Your task to perform on an android device: Search for pizza restaurants on Maps Image 0: 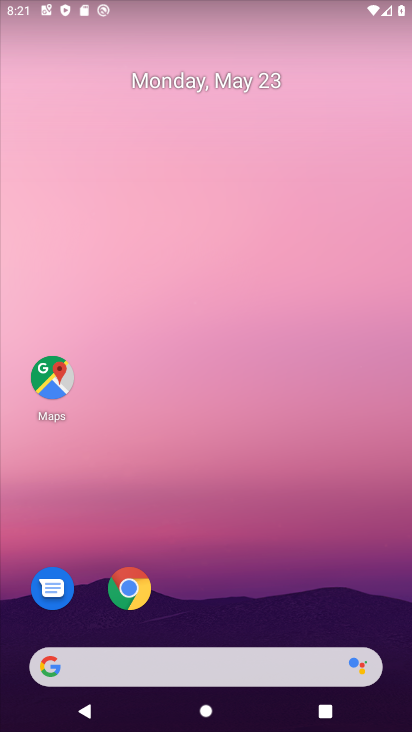
Step 0: click (44, 371)
Your task to perform on an android device: Search for pizza restaurants on Maps Image 1: 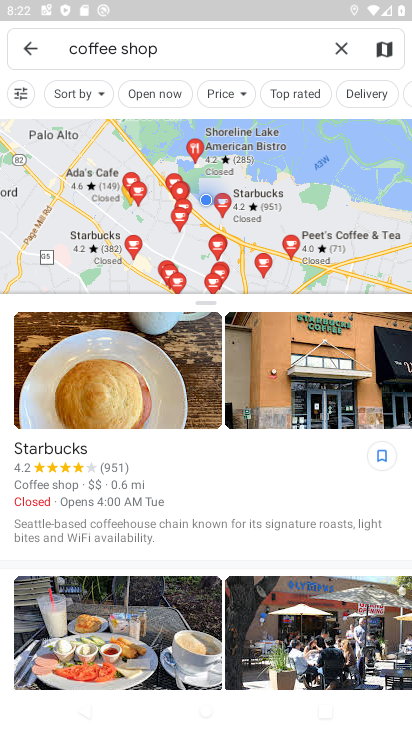
Step 1: click (344, 46)
Your task to perform on an android device: Search for pizza restaurants on Maps Image 2: 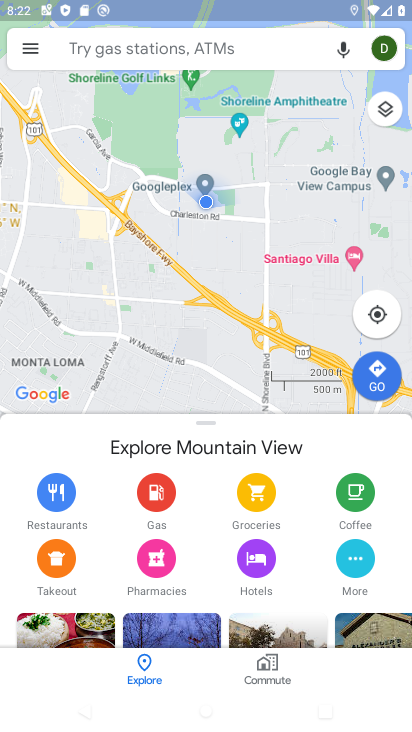
Step 2: click (87, 46)
Your task to perform on an android device: Search for pizza restaurants on Maps Image 3: 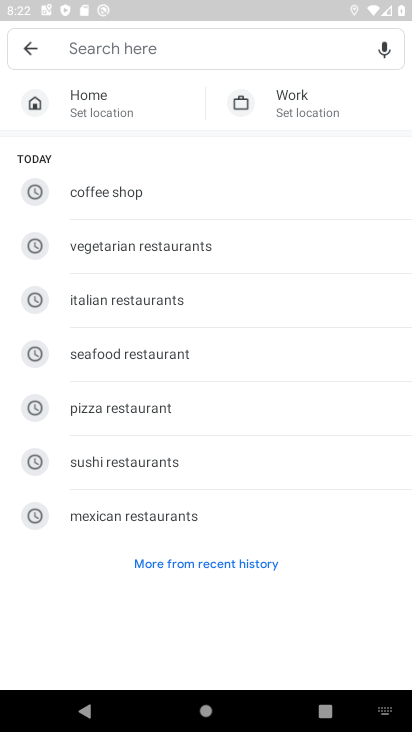
Step 3: type "pizza restaurants"
Your task to perform on an android device: Search for pizza restaurants on Maps Image 4: 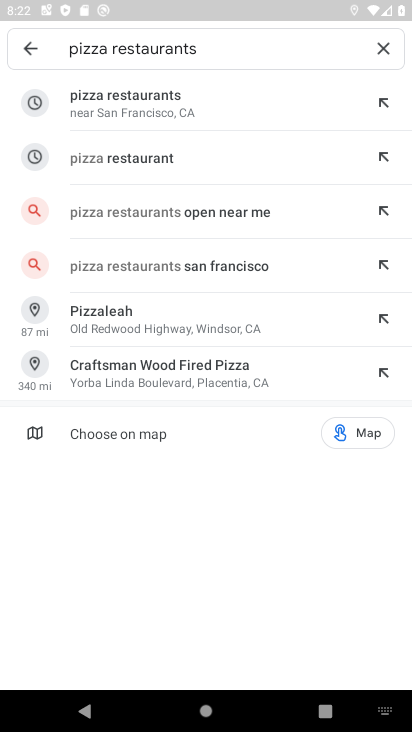
Step 4: click (107, 149)
Your task to perform on an android device: Search for pizza restaurants on Maps Image 5: 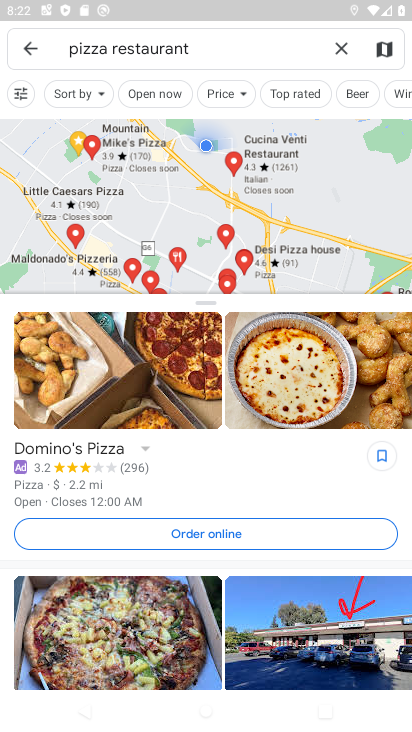
Step 5: task complete